Your task to perform on an android device: toggle wifi Image 0: 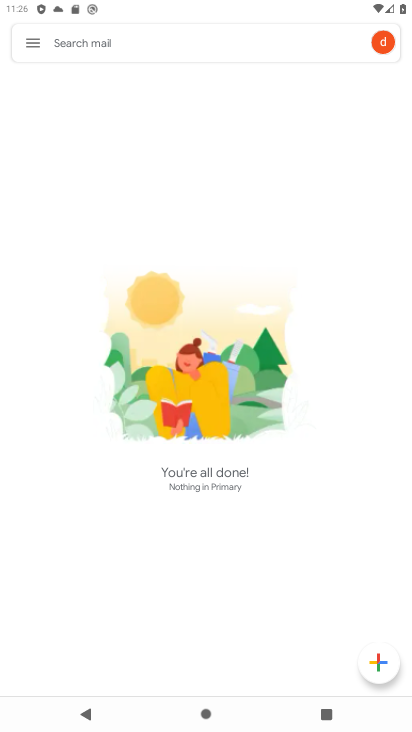
Step 0: press home button
Your task to perform on an android device: toggle wifi Image 1: 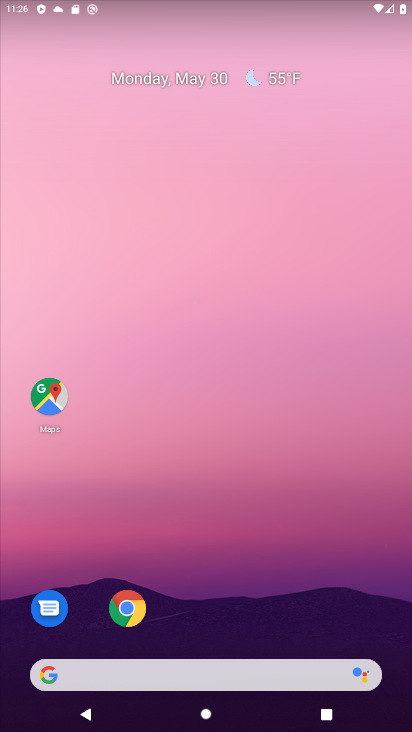
Step 1: drag from (224, 605) to (201, 1)
Your task to perform on an android device: toggle wifi Image 2: 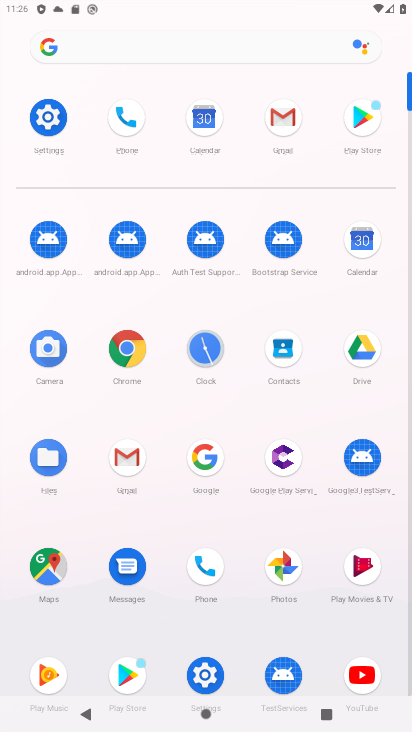
Step 2: click (46, 151)
Your task to perform on an android device: toggle wifi Image 3: 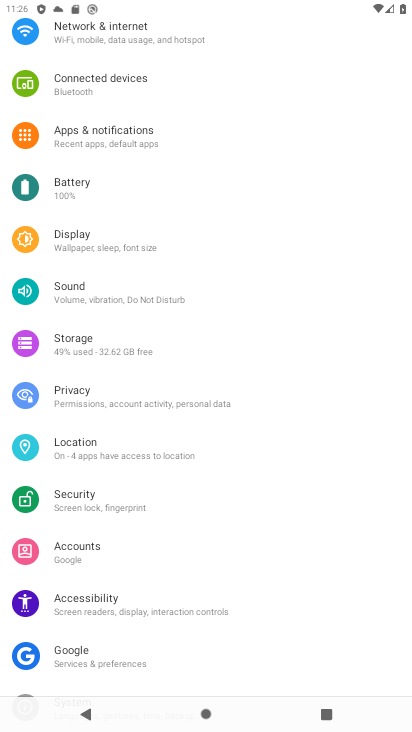
Step 3: drag from (309, 180) to (282, 506)
Your task to perform on an android device: toggle wifi Image 4: 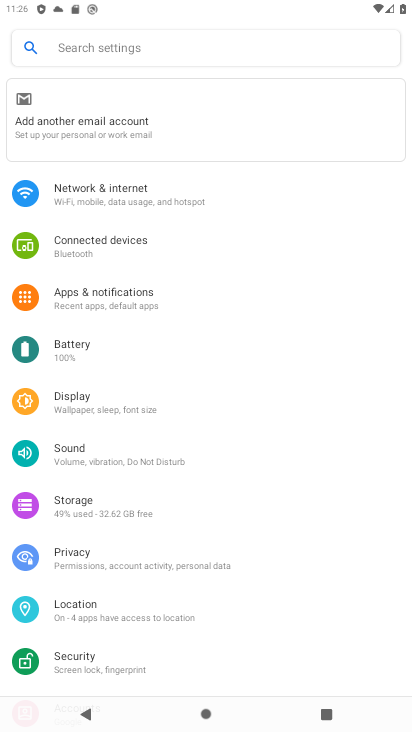
Step 4: click (97, 201)
Your task to perform on an android device: toggle wifi Image 5: 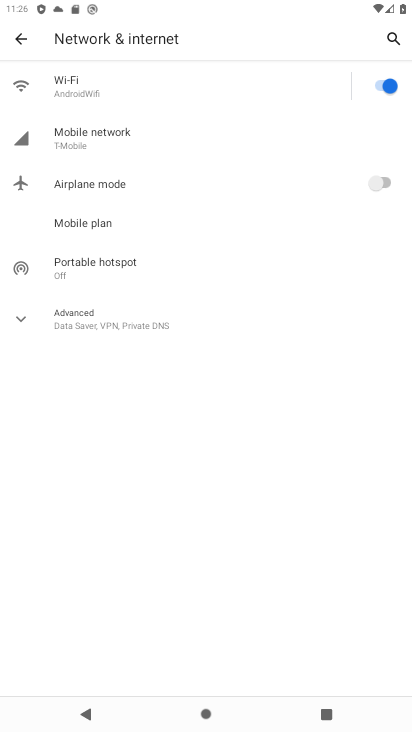
Step 5: click (381, 88)
Your task to perform on an android device: toggle wifi Image 6: 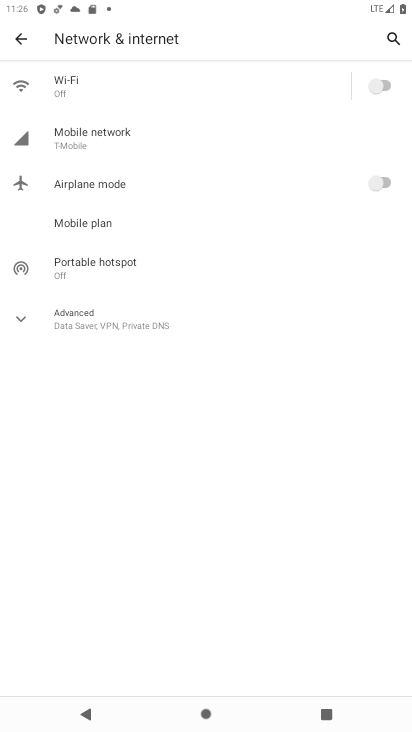
Step 6: task complete